Your task to perform on an android device: What is the recent news? Image 0: 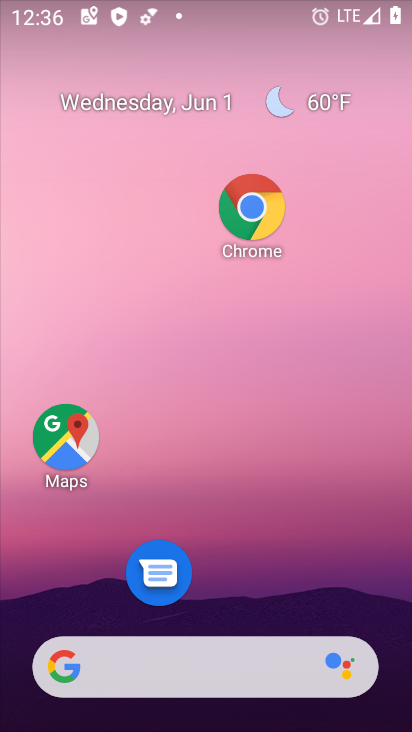
Step 0: drag from (231, 621) to (217, 118)
Your task to perform on an android device: What is the recent news? Image 1: 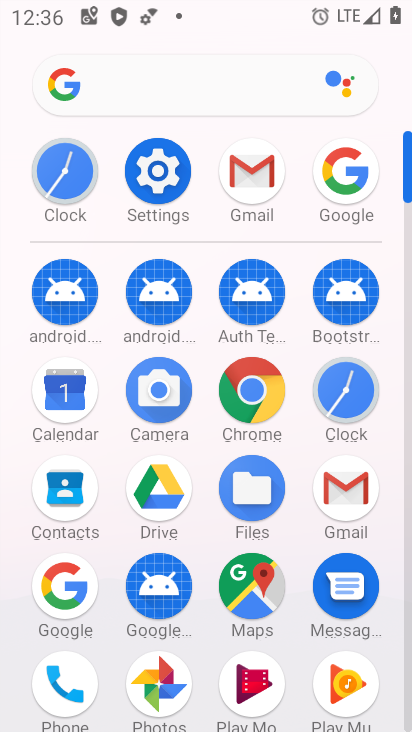
Step 1: click (41, 588)
Your task to perform on an android device: What is the recent news? Image 2: 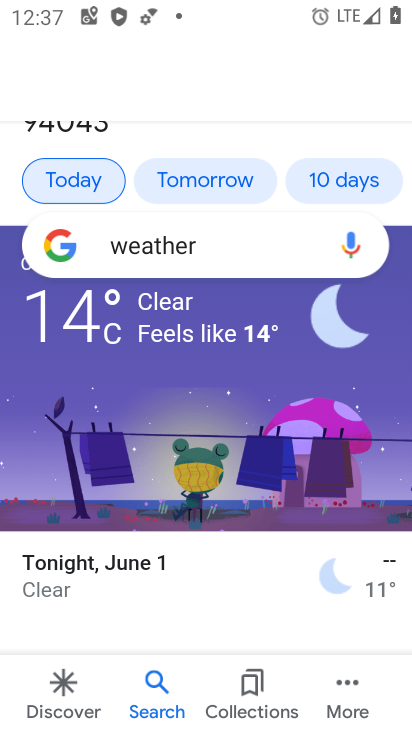
Step 2: click (218, 232)
Your task to perform on an android device: What is the recent news? Image 3: 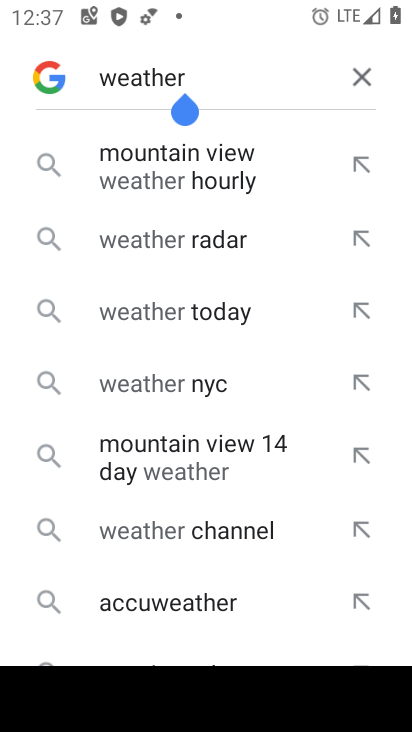
Step 3: click (350, 77)
Your task to perform on an android device: What is the recent news? Image 4: 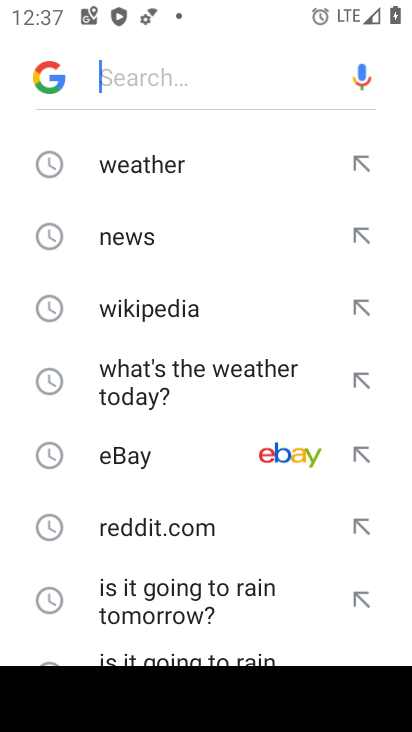
Step 4: click (174, 242)
Your task to perform on an android device: What is the recent news? Image 5: 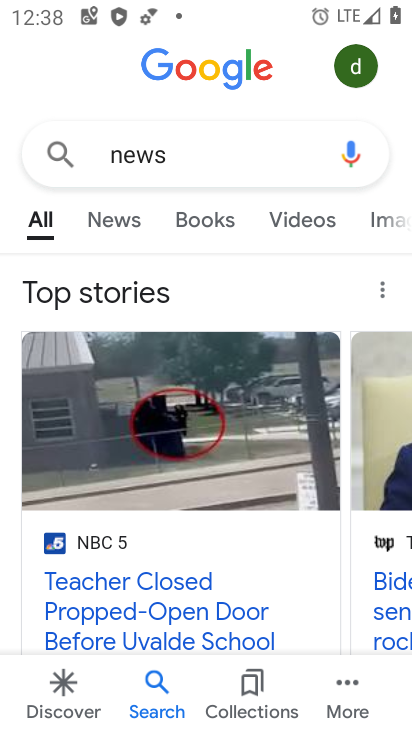
Step 5: click (100, 216)
Your task to perform on an android device: What is the recent news? Image 6: 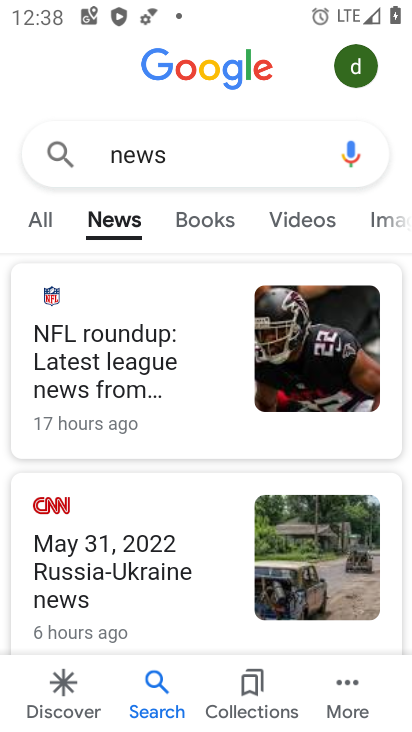
Step 6: task complete